Your task to perform on an android device: choose inbox layout in the gmail app Image 0: 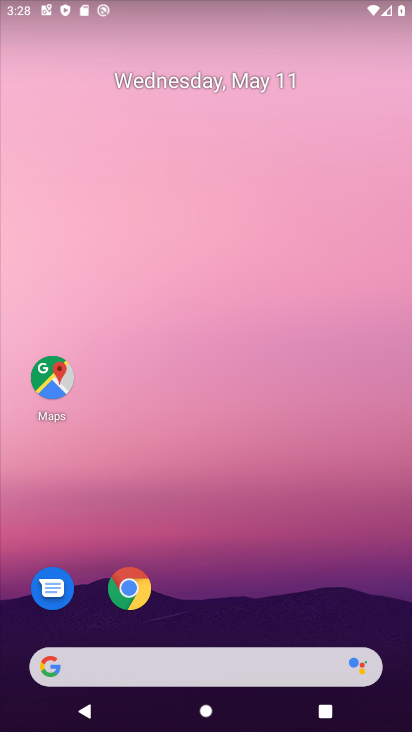
Step 0: drag from (236, 589) to (269, 130)
Your task to perform on an android device: choose inbox layout in the gmail app Image 1: 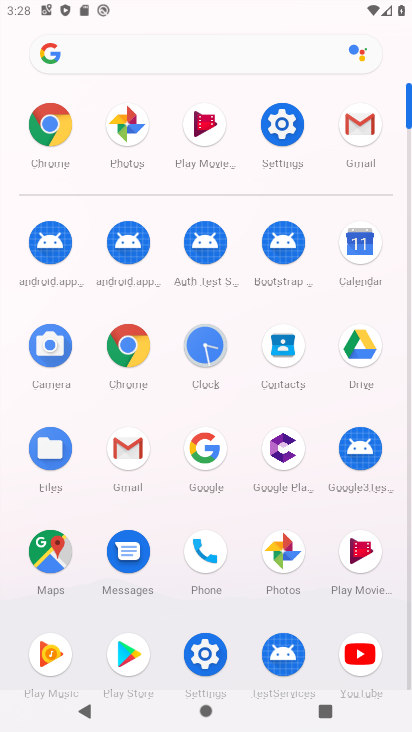
Step 1: click (129, 460)
Your task to perform on an android device: choose inbox layout in the gmail app Image 2: 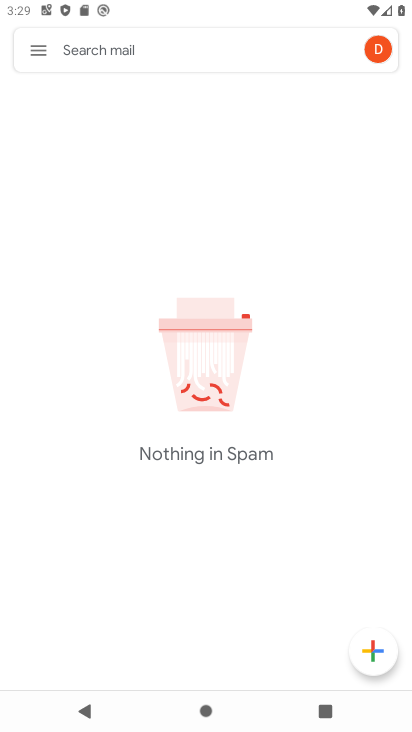
Step 2: click (45, 53)
Your task to perform on an android device: choose inbox layout in the gmail app Image 3: 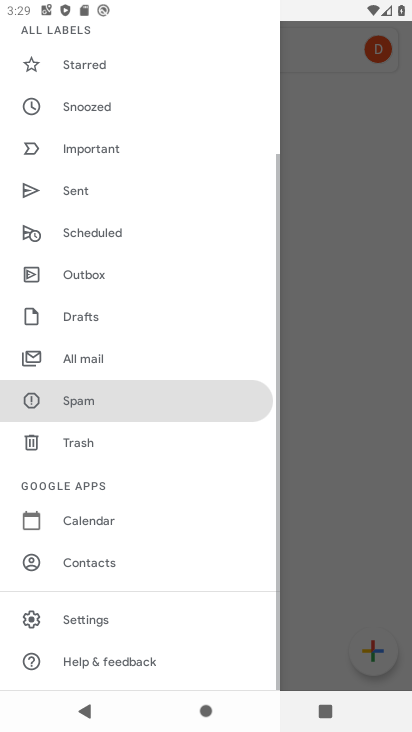
Step 3: drag from (164, 579) to (207, 319)
Your task to perform on an android device: choose inbox layout in the gmail app Image 4: 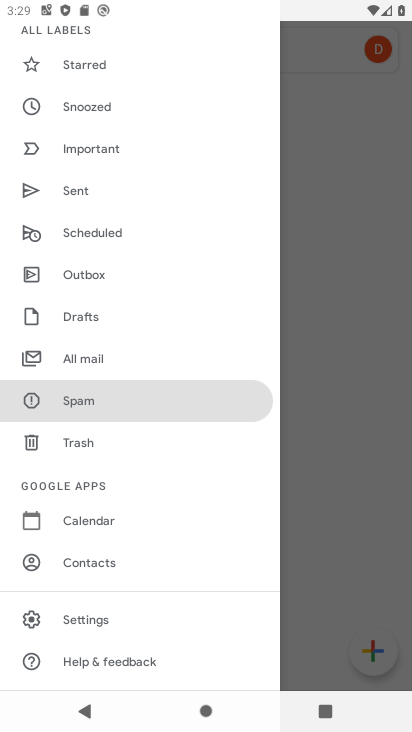
Step 4: click (100, 620)
Your task to perform on an android device: choose inbox layout in the gmail app Image 5: 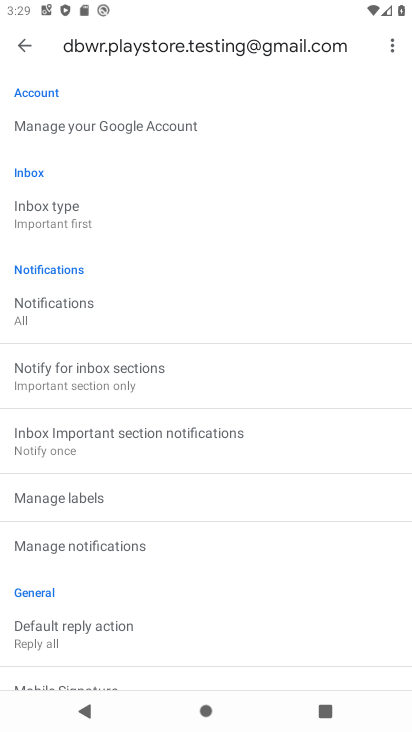
Step 5: click (79, 205)
Your task to perform on an android device: choose inbox layout in the gmail app Image 6: 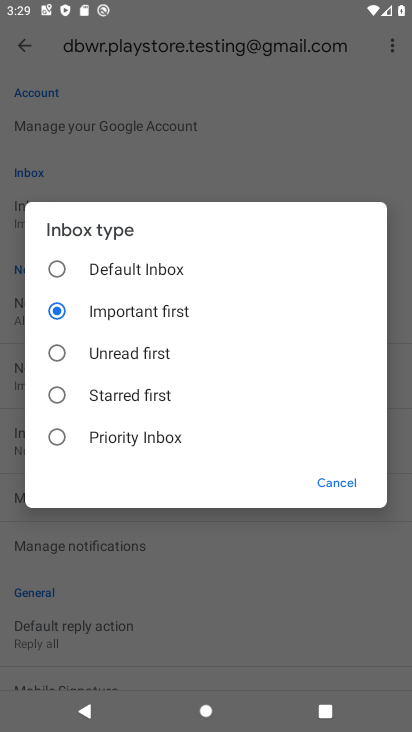
Step 6: click (191, 270)
Your task to perform on an android device: choose inbox layout in the gmail app Image 7: 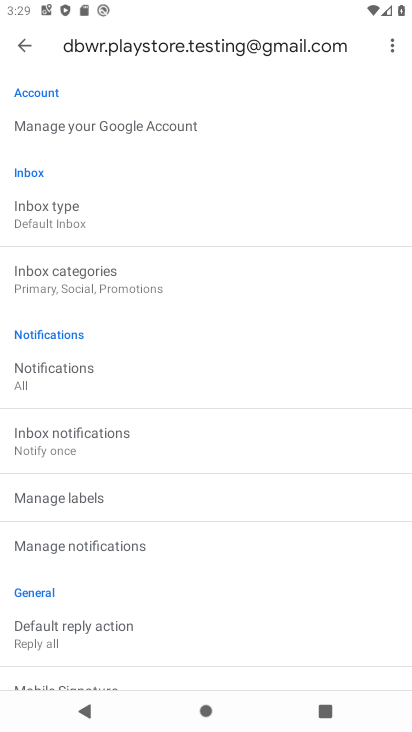
Step 7: task complete